Your task to perform on an android device: Open Amazon Image 0: 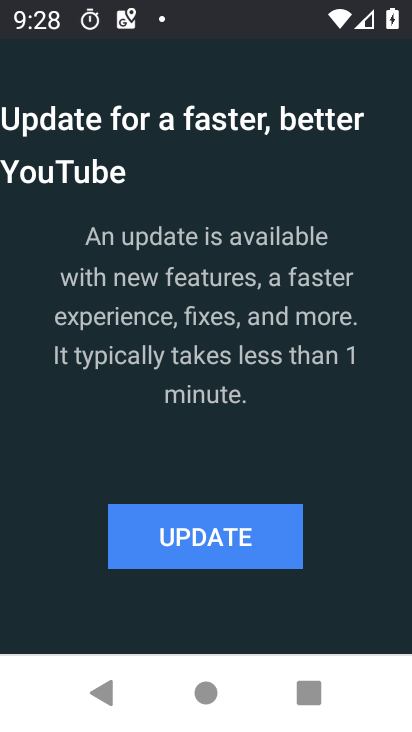
Step 0: press home button
Your task to perform on an android device: Open Amazon Image 1: 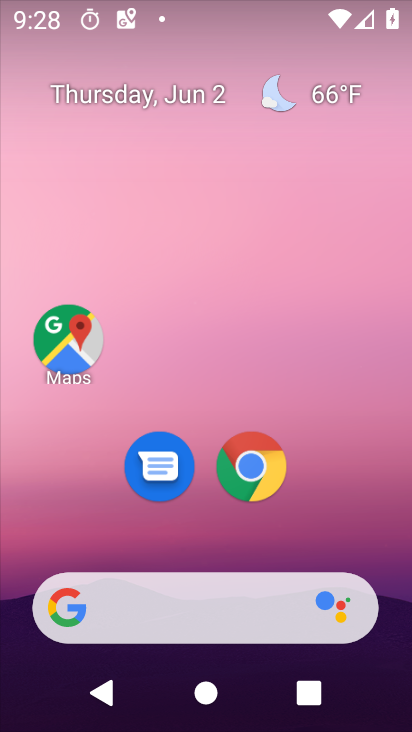
Step 1: click (228, 458)
Your task to perform on an android device: Open Amazon Image 2: 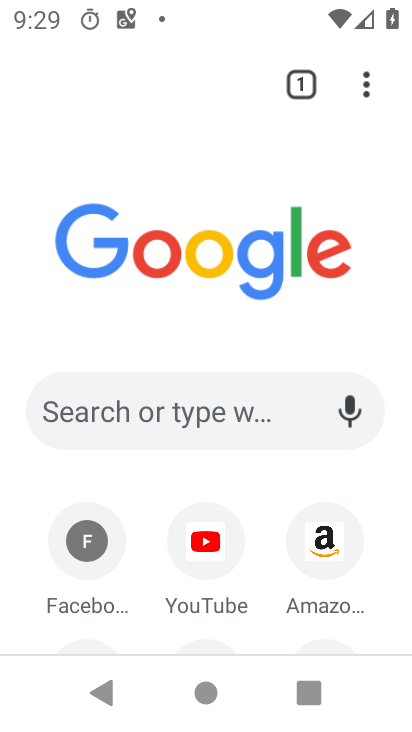
Step 2: click (316, 537)
Your task to perform on an android device: Open Amazon Image 3: 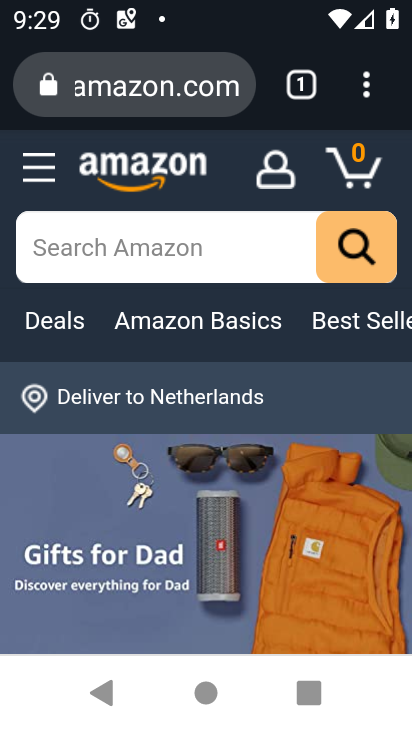
Step 3: task complete